Your task to perform on an android device: turn notification dots on Image 0: 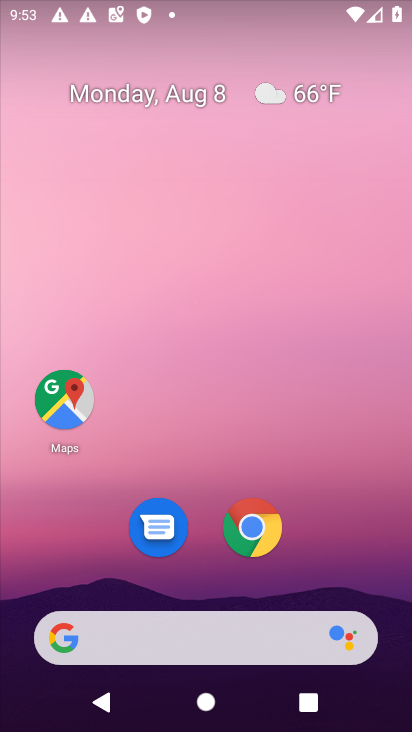
Step 0: drag from (395, 697) to (377, 88)
Your task to perform on an android device: turn notification dots on Image 1: 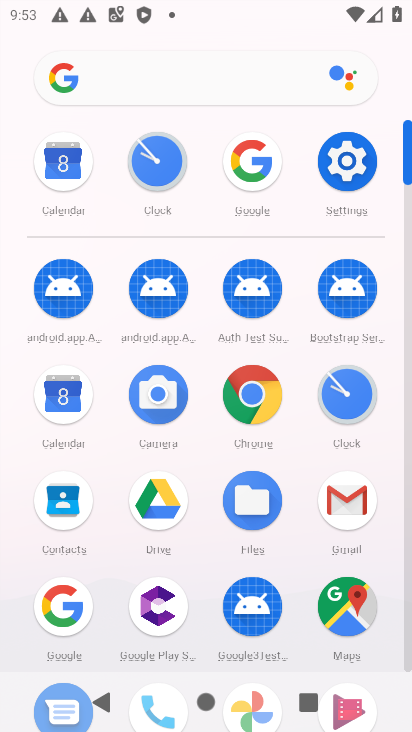
Step 1: click (353, 156)
Your task to perform on an android device: turn notification dots on Image 2: 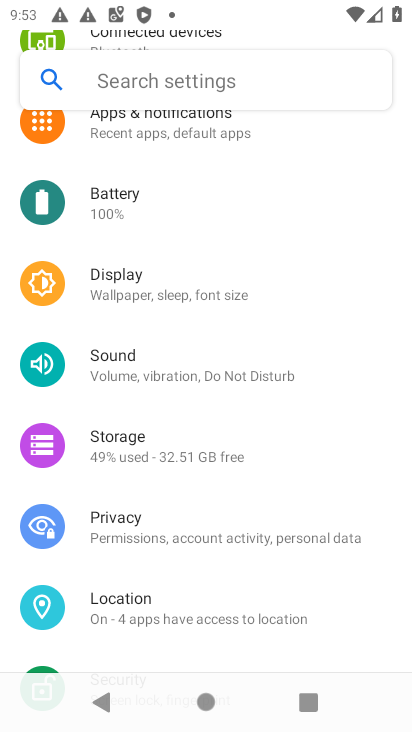
Step 2: click (197, 120)
Your task to perform on an android device: turn notification dots on Image 3: 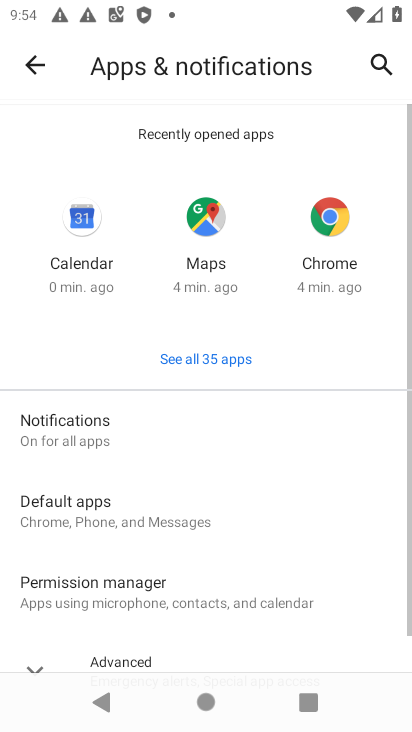
Step 3: drag from (308, 649) to (311, 263)
Your task to perform on an android device: turn notification dots on Image 4: 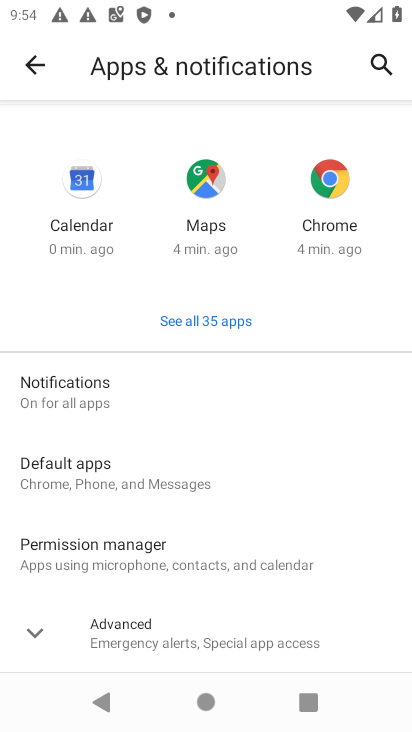
Step 4: click (35, 376)
Your task to perform on an android device: turn notification dots on Image 5: 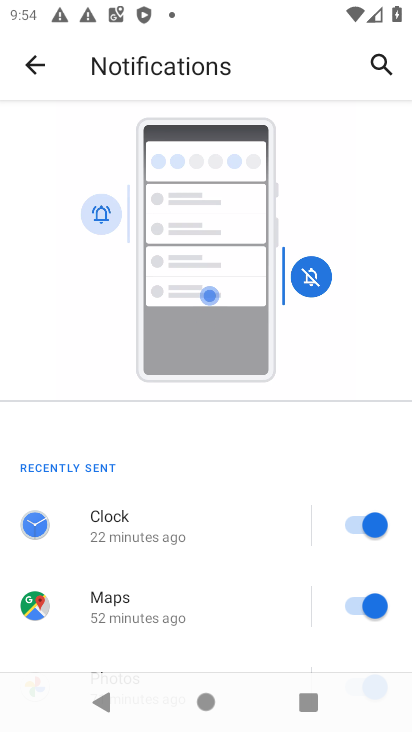
Step 5: drag from (278, 628) to (262, 141)
Your task to perform on an android device: turn notification dots on Image 6: 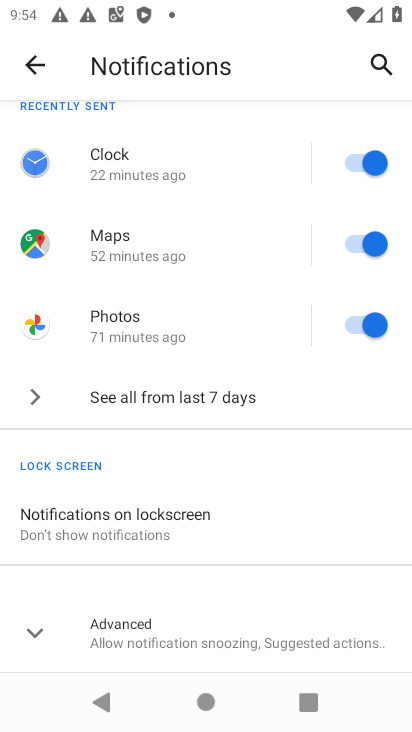
Step 6: drag from (287, 594) to (286, 205)
Your task to perform on an android device: turn notification dots on Image 7: 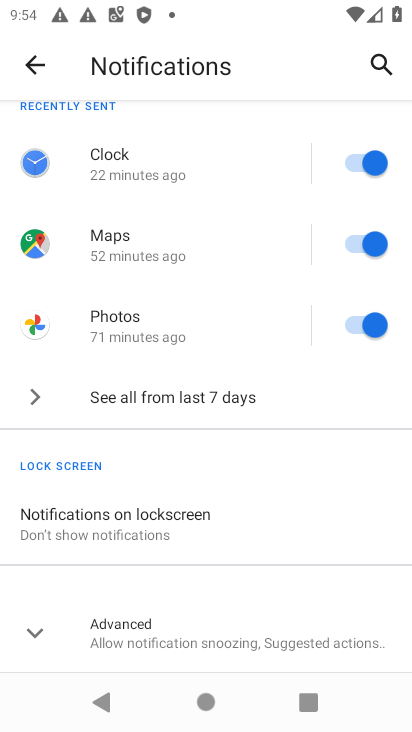
Step 7: click (40, 627)
Your task to perform on an android device: turn notification dots on Image 8: 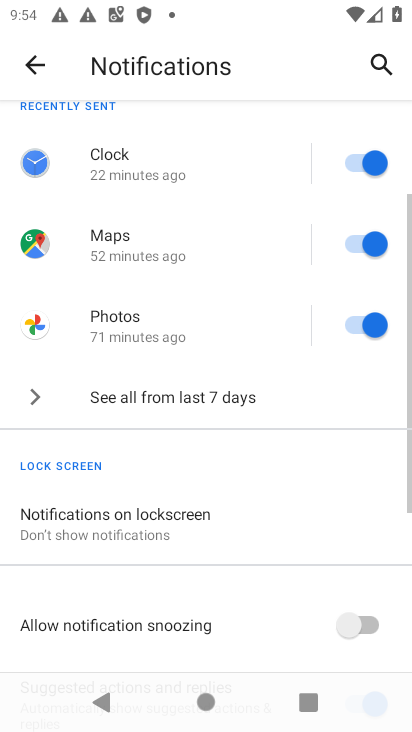
Step 8: task complete